Your task to perform on an android device: Open the calendar app, open the side menu, and click the "Day" option Image 0: 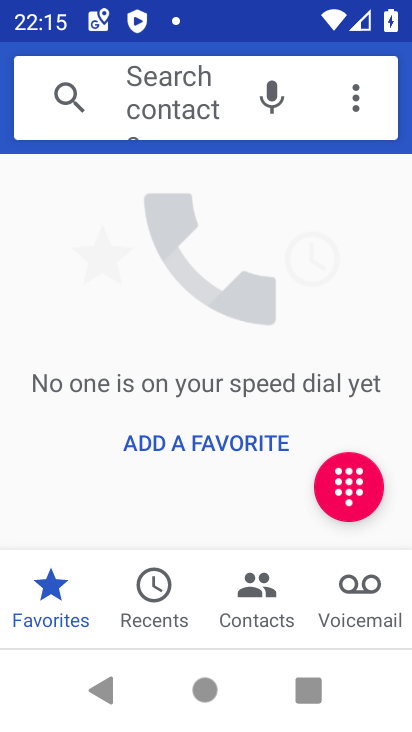
Step 0: press home button
Your task to perform on an android device: Open the calendar app, open the side menu, and click the "Day" option Image 1: 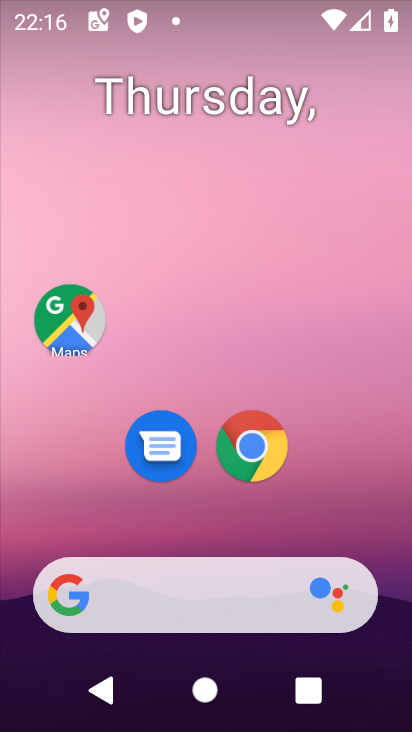
Step 1: drag from (339, 510) to (347, 53)
Your task to perform on an android device: Open the calendar app, open the side menu, and click the "Day" option Image 2: 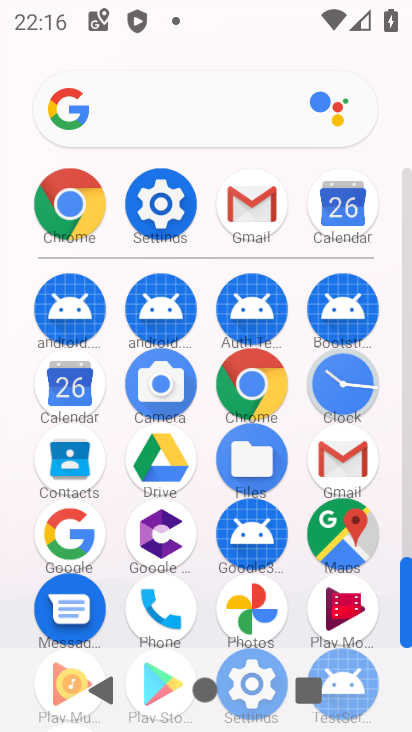
Step 2: click (74, 391)
Your task to perform on an android device: Open the calendar app, open the side menu, and click the "Day" option Image 3: 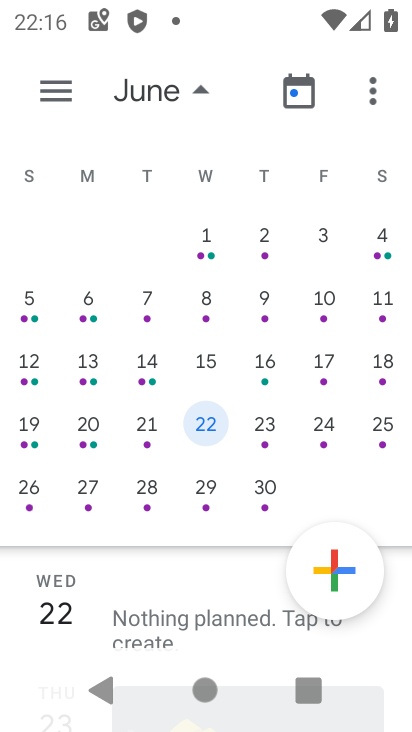
Step 3: click (52, 87)
Your task to perform on an android device: Open the calendar app, open the side menu, and click the "Day" option Image 4: 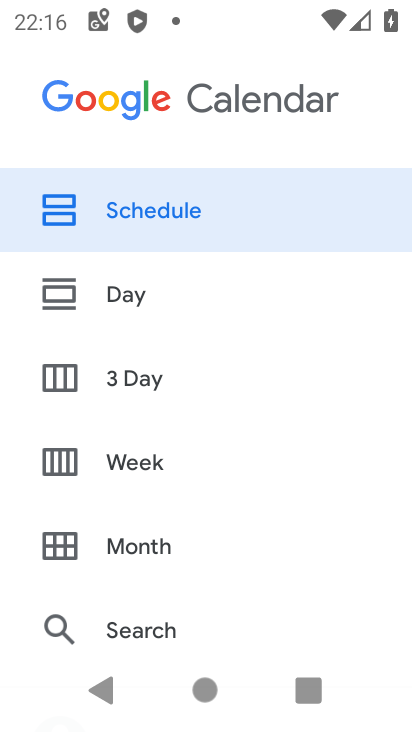
Step 4: click (66, 309)
Your task to perform on an android device: Open the calendar app, open the side menu, and click the "Day" option Image 5: 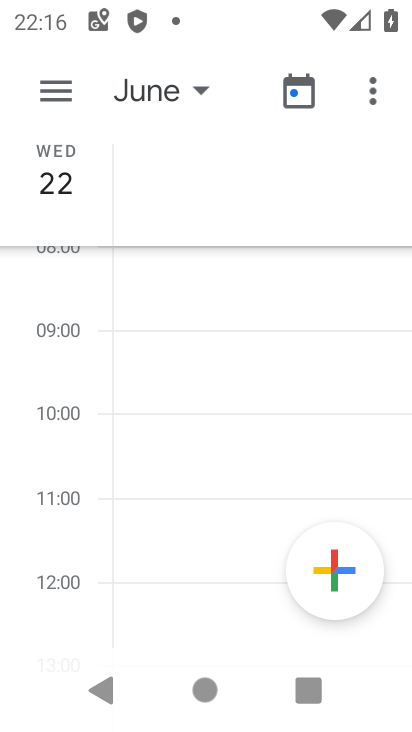
Step 5: task complete